Your task to perform on an android device: turn vacation reply on in the gmail app Image 0: 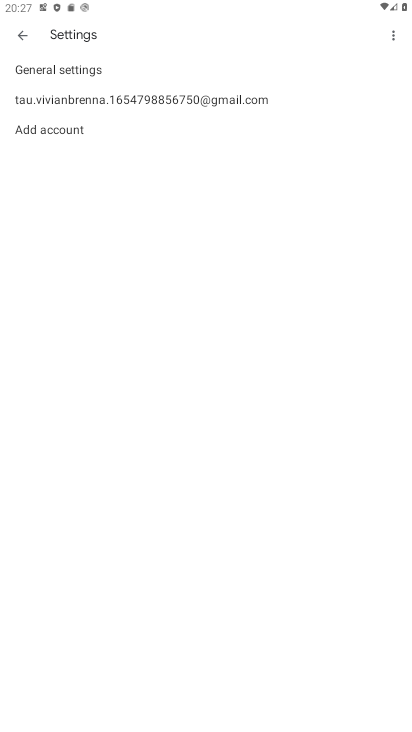
Step 0: click (196, 104)
Your task to perform on an android device: turn vacation reply on in the gmail app Image 1: 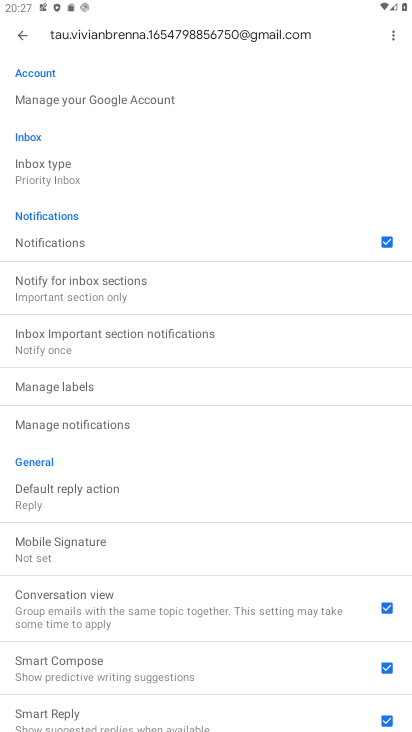
Step 1: drag from (176, 676) to (217, 362)
Your task to perform on an android device: turn vacation reply on in the gmail app Image 2: 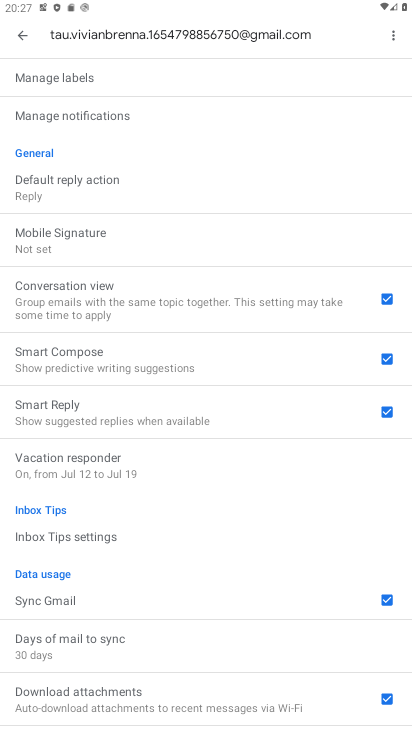
Step 2: click (183, 451)
Your task to perform on an android device: turn vacation reply on in the gmail app Image 3: 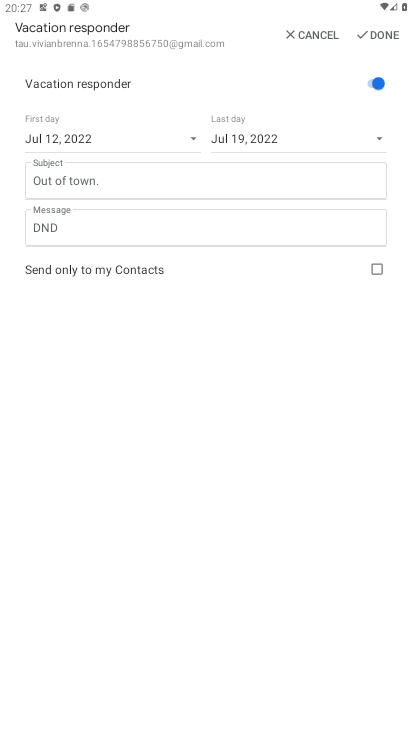
Step 3: click (376, 40)
Your task to perform on an android device: turn vacation reply on in the gmail app Image 4: 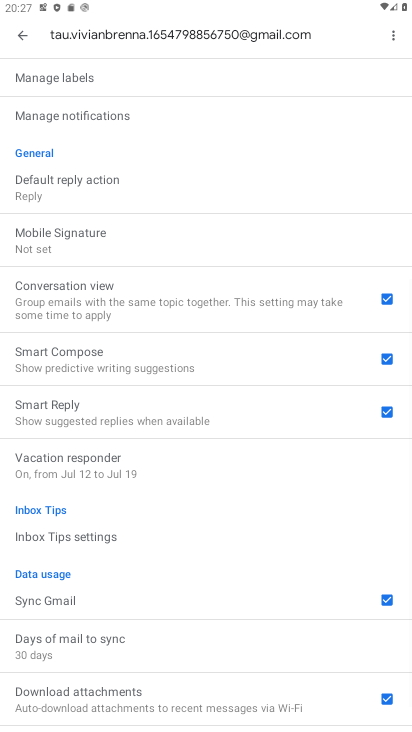
Step 4: task complete